Your task to perform on an android device: Go to ESPN.com Image 0: 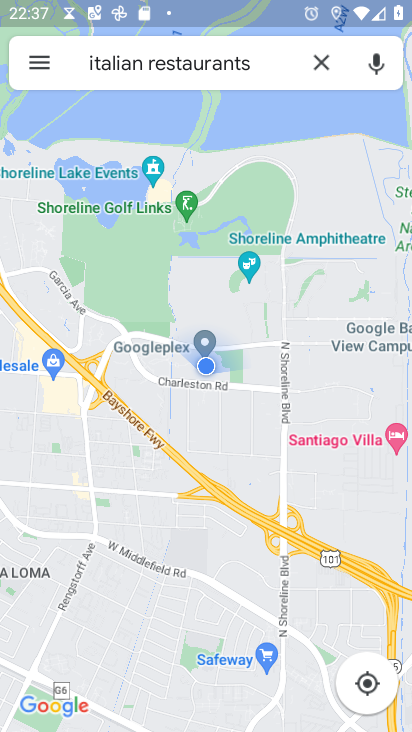
Step 0: press home button
Your task to perform on an android device: Go to ESPN.com Image 1: 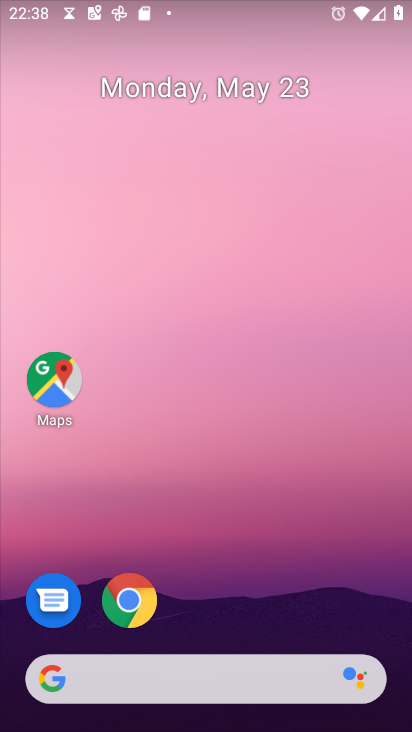
Step 1: click (126, 598)
Your task to perform on an android device: Go to ESPN.com Image 2: 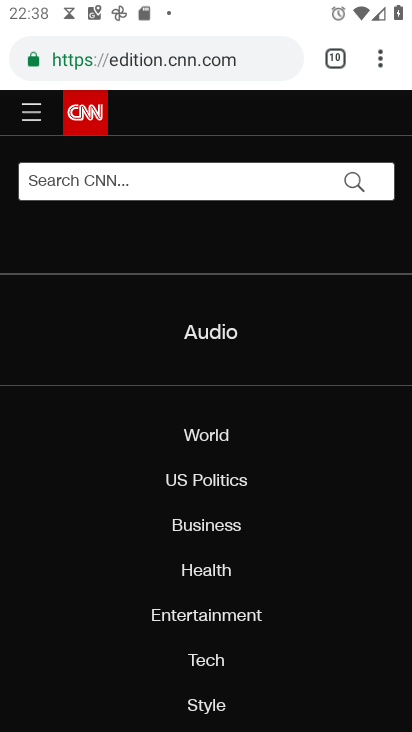
Step 2: click (381, 68)
Your task to perform on an android device: Go to ESPN.com Image 3: 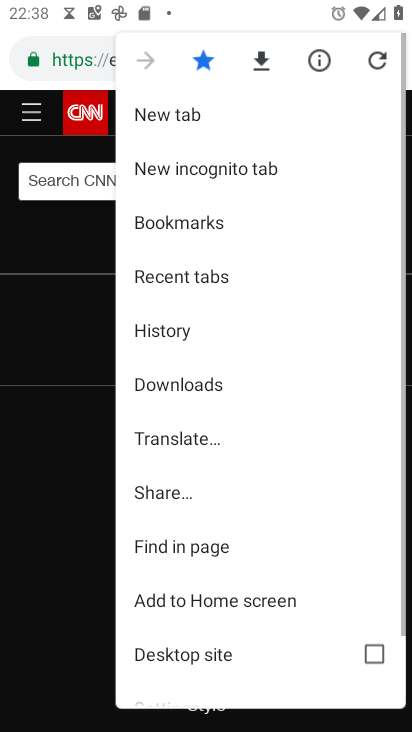
Step 3: click (167, 110)
Your task to perform on an android device: Go to ESPN.com Image 4: 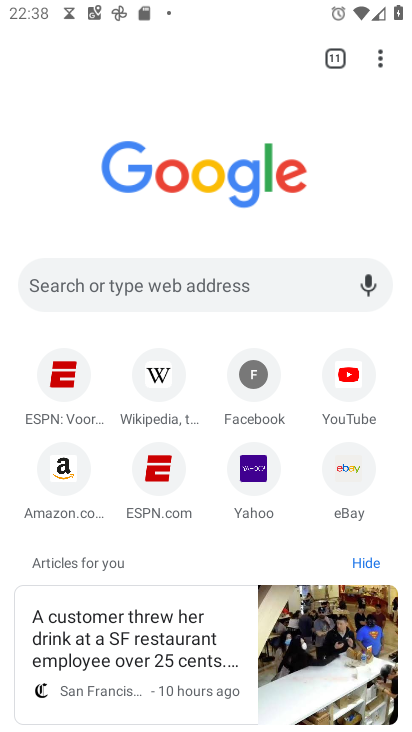
Step 4: click (60, 378)
Your task to perform on an android device: Go to ESPN.com Image 5: 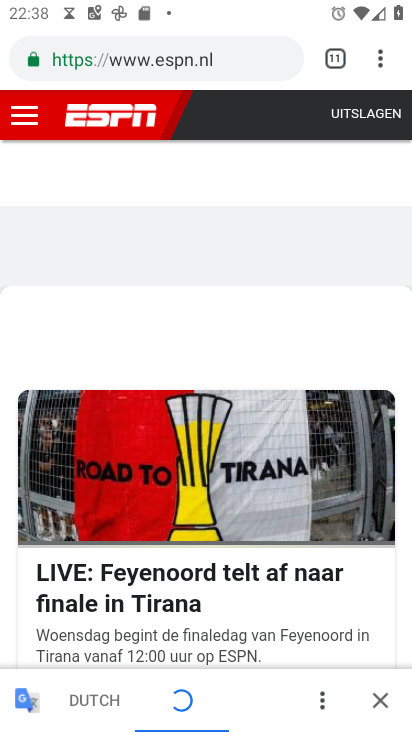
Step 5: task complete